Your task to perform on an android device: turn vacation reply on in the gmail app Image 0: 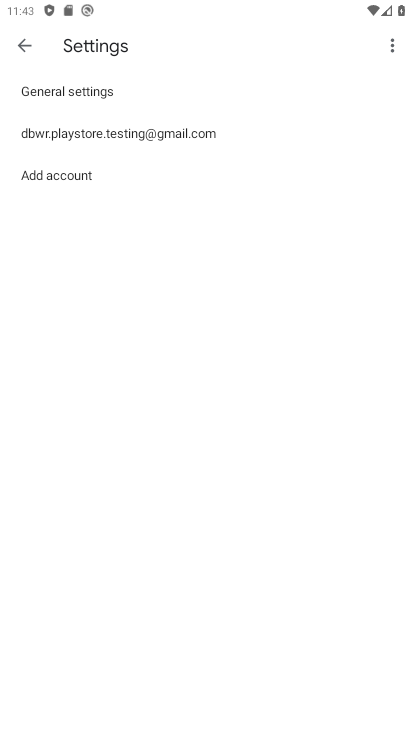
Step 0: click (207, 138)
Your task to perform on an android device: turn vacation reply on in the gmail app Image 1: 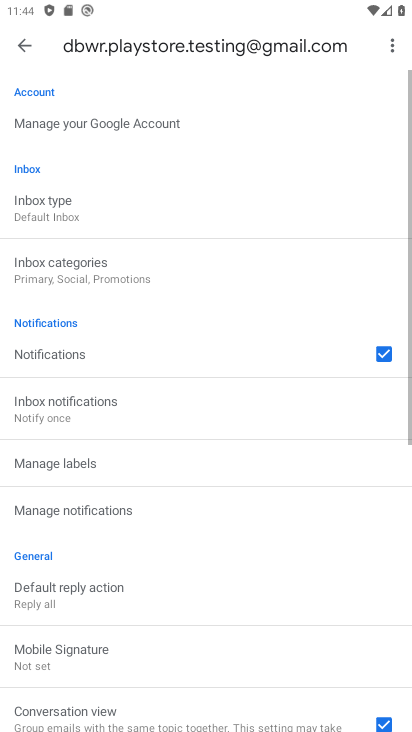
Step 1: drag from (100, 669) to (84, 153)
Your task to perform on an android device: turn vacation reply on in the gmail app Image 2: 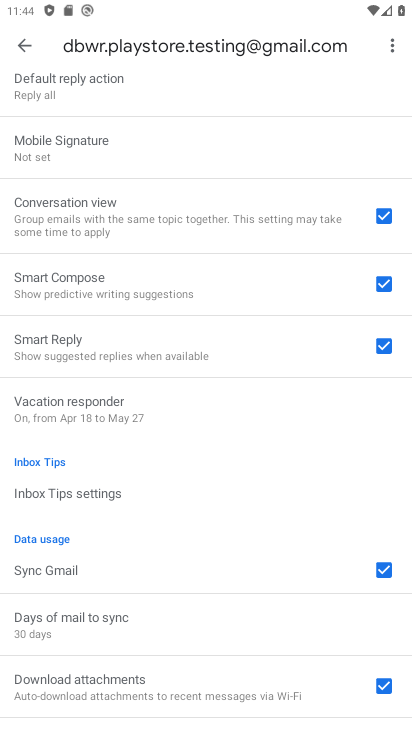
Step 2: click (121, 419)
Your task to perform on an android device: turn vacation reply on in the gmail app Image 3: 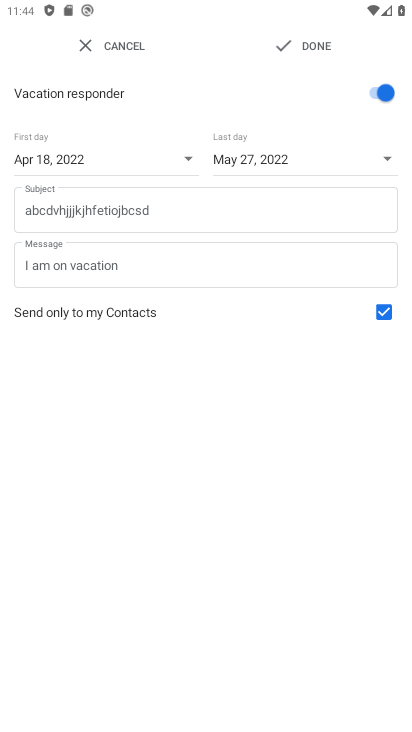
Step 3: task complete